Your task to perform on an android device: Go to Reddit.com Image 0: 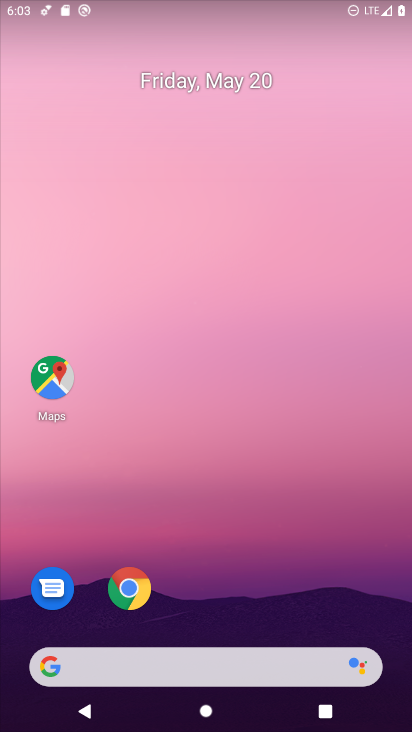
Step 0: click (130, 592)
Your task to perform on an android device: Go to Reddit.com Image 1: 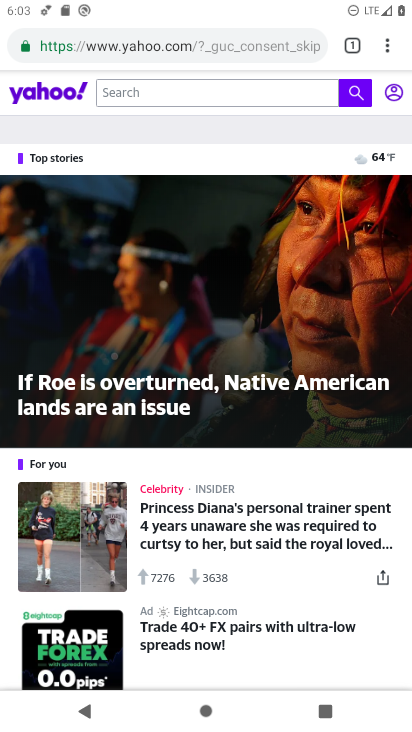
Step 1: click (240, 41)
Your task to perform on an android device: Go to Reddit.com Image 2: 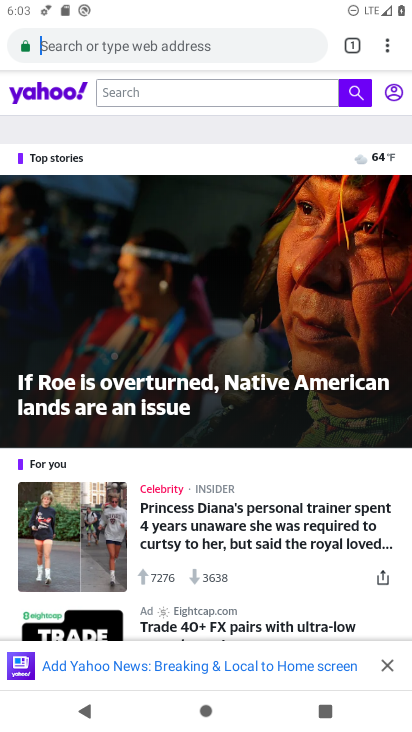
Step 2: click (240, 41)
Your task to perform on an android device: Go to Reddit.com Image 3: 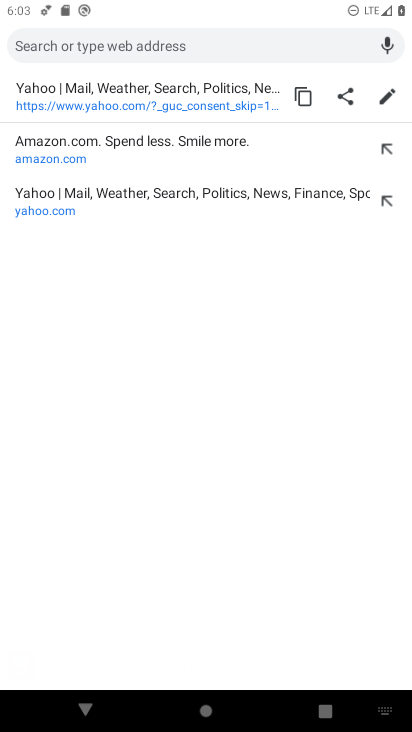
Step 3: type "www.reddit.com"
Your task to perform on an android device: Go to Reddit.com Image 4: 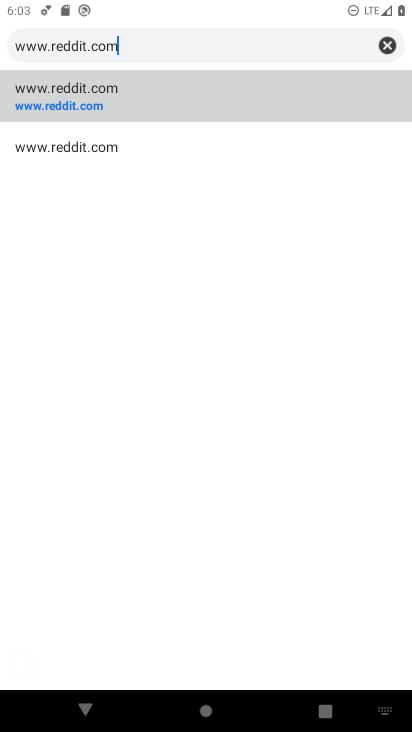
Step 4: click (48, 92)
Your task to perform on an android device: Go to Reddit.com Image 5: 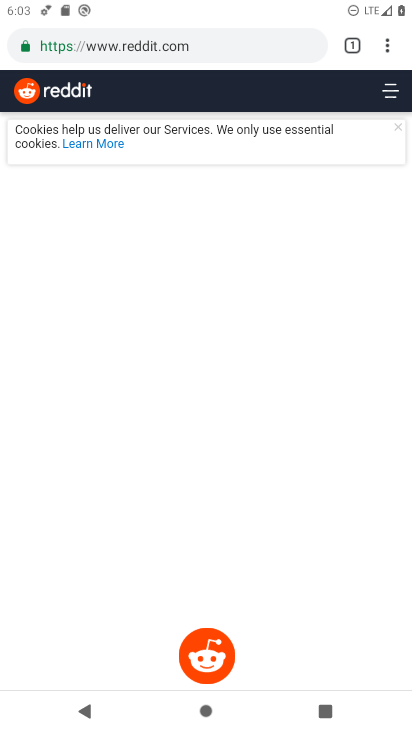
Step 5: task complete